Your task to perform on an android device: change your default location settings in chrome Image 0: 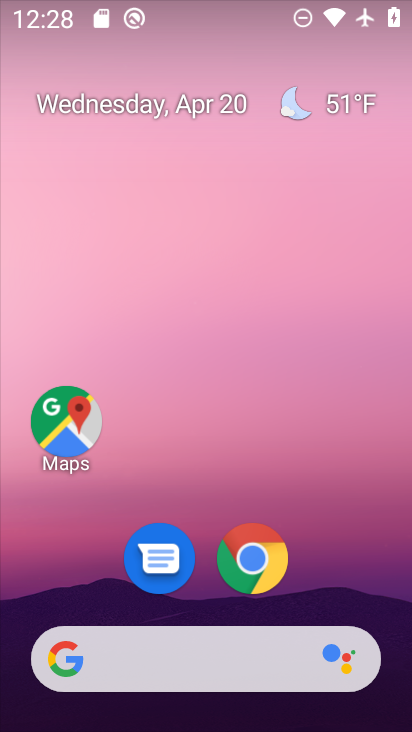
Step 0: click (252, 560)
Your task to perform on an android device: change your default location settings in chrome Image 1: 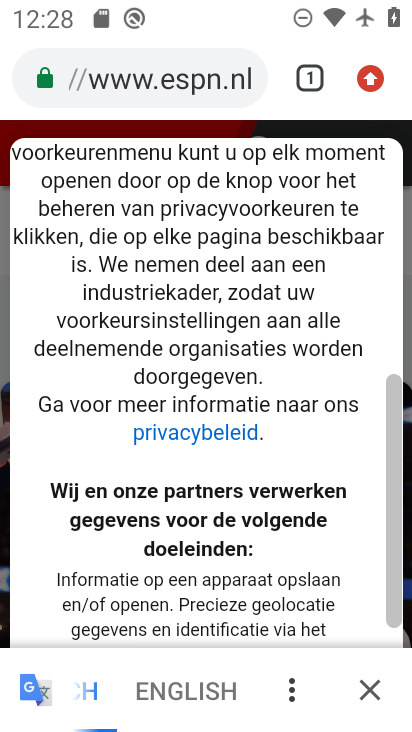
Step 1: click (367, 75)
Your task to perform on an android device: change your default location settings in chrome Image 2: 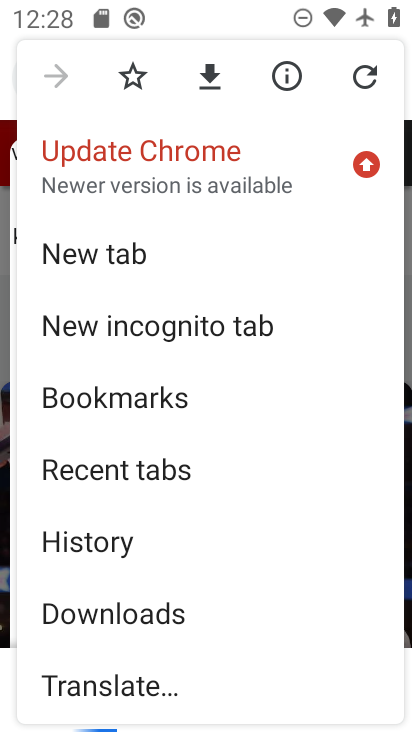
Step 2: drag from (234, 597) to (271, 312)
Your task to perform on an android device: change your default location settings in chrome Image 3: 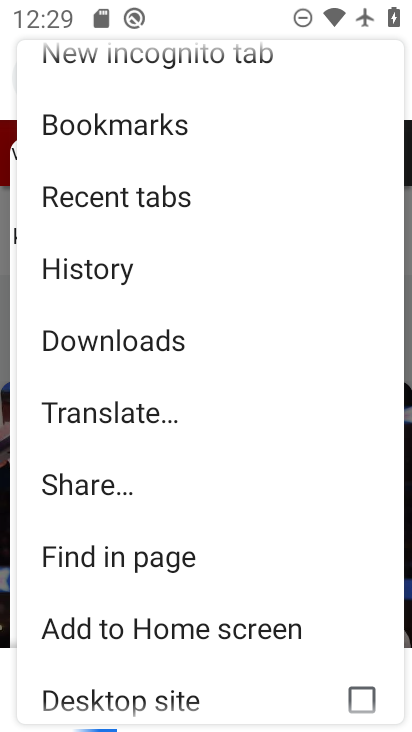
Step 3: drag from (299, 537) to (276, 217)
Your task to perform on an android device: change your default location settings in chrome Image 4: 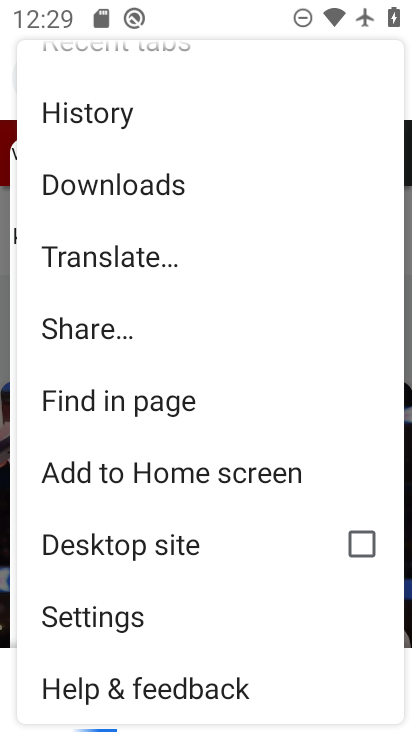
Step 4: click (82, 615)
Your task to perform on an android device: change your default location settings in chrome Image 5: 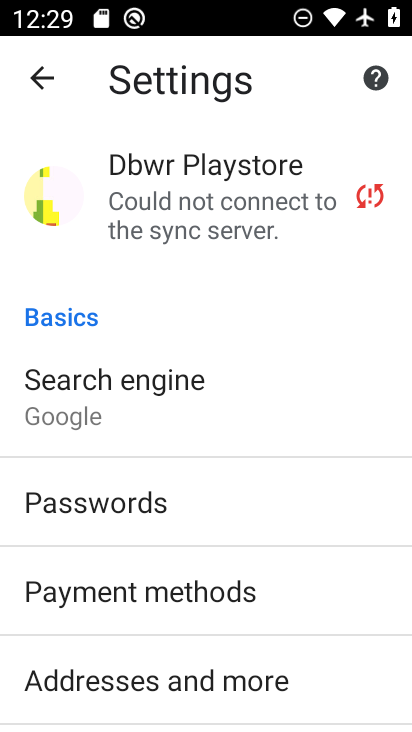
Step 5: drag from (299, 621) to (279, 354)
Your task to perform on an android device: change your default location settings in chrome Image 6: 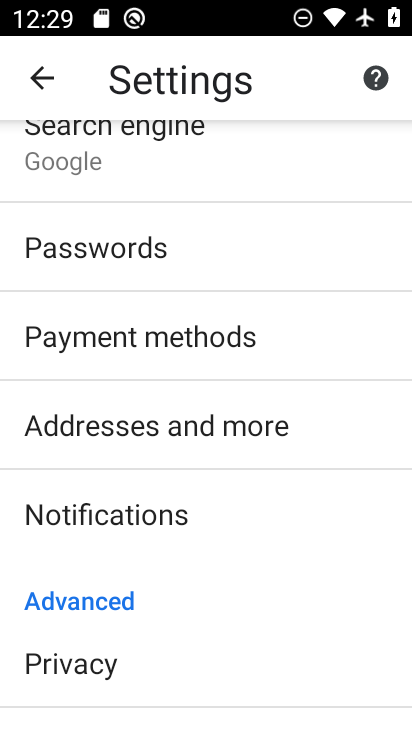
Step 6: drag from (259, 633) to (317, 310)
Your task to perform on an android device: change your default location settings in chrome Image 7: 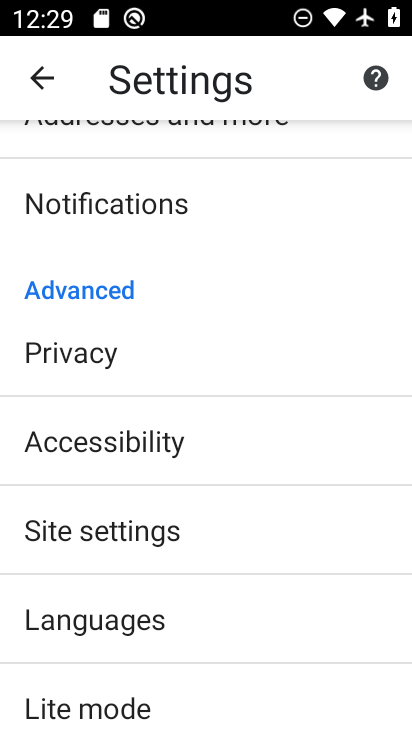
Step 7: click (102, 525)
Your task to perform on an android device: change your default location settings in chrome Image 8: 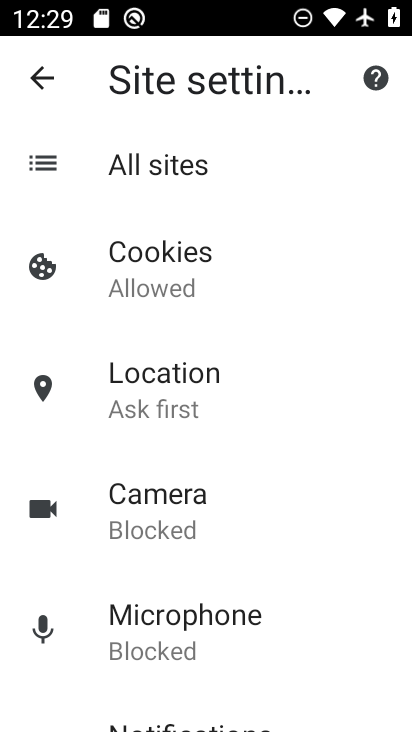
Step 8: click (152, 389)
Your task to perform on an android device: change your default location settings in chrome Image 9: 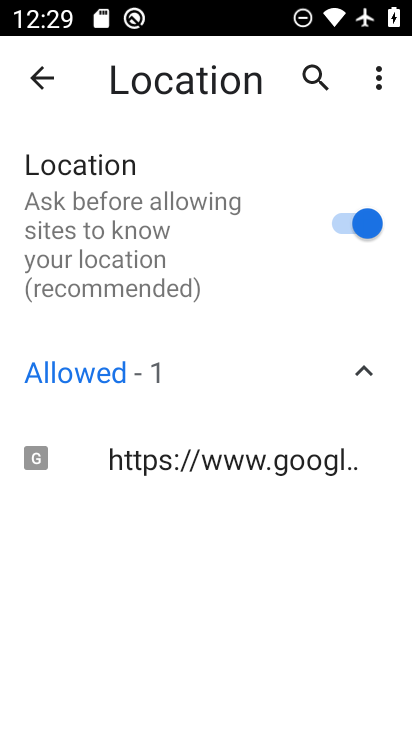
Step 9: click (336, 224)
Your task to perform on an android device: change your default location settings in chrome Image 10: 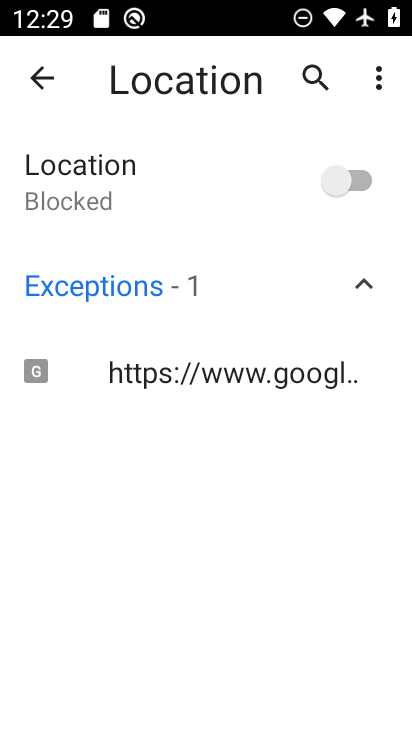
Step 10: task complete